Your task to perform on an android device: open a bookmark in the chrome app Image 0: 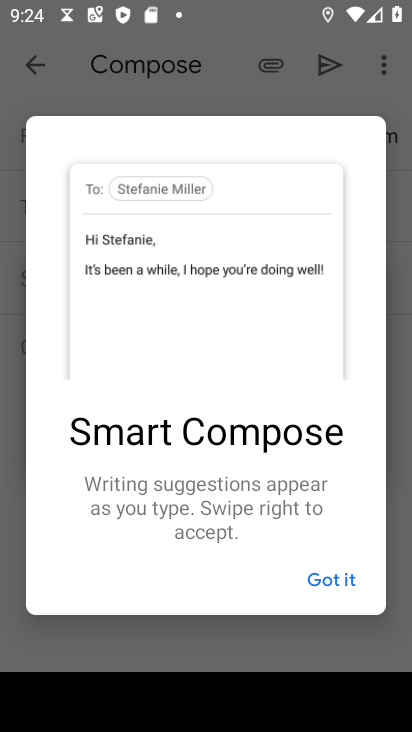
Step 0: press home button
Your task to perform on an android device: open a bookmark in the chrome app Image 1: 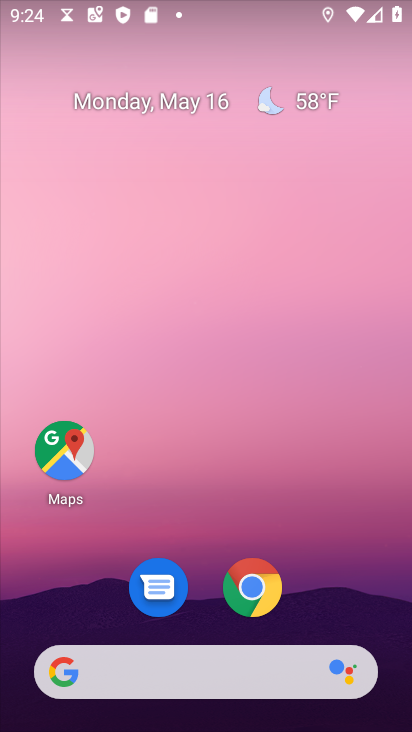
Step 1: click (268, 595)
Your task to perform on an android device: open a bookmark in the chrome app Image 2: 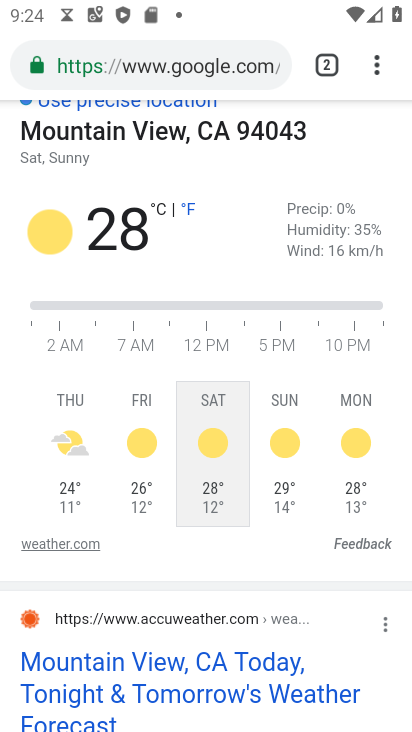
Step 2: click (376, 69)
Your task to perform on an android device: open a bookmark in the chrome app Image 3: 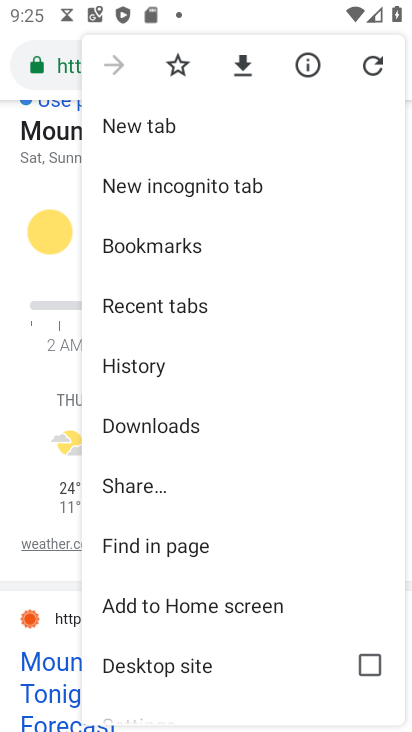
Step 3: click (269, 240)
Your task to perform on an android device: open a bookmark in the chrome app Image 4: 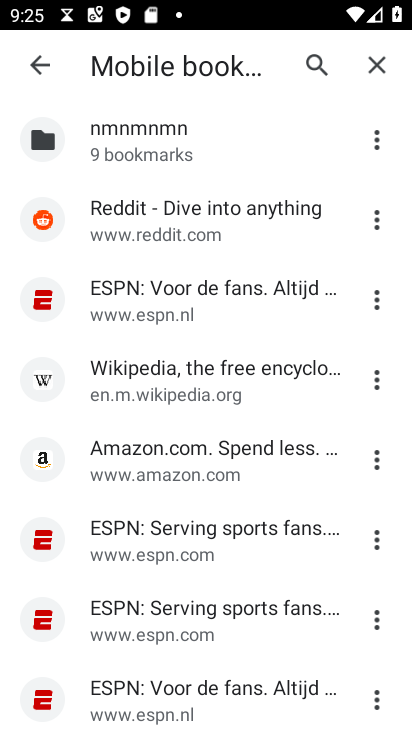
Step 4: click (245, 393)
Your task to perform on an android device: open a bookmark in the chrome app Image 5: 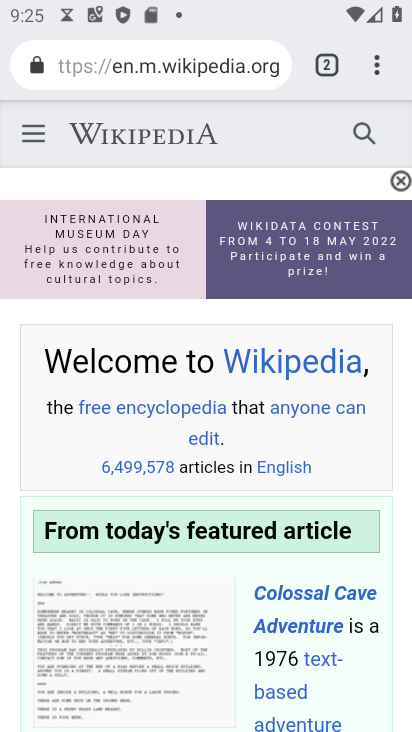
Step 5: task complete